Your task to perform on an android device: turn on improve location accuracy Image 0: 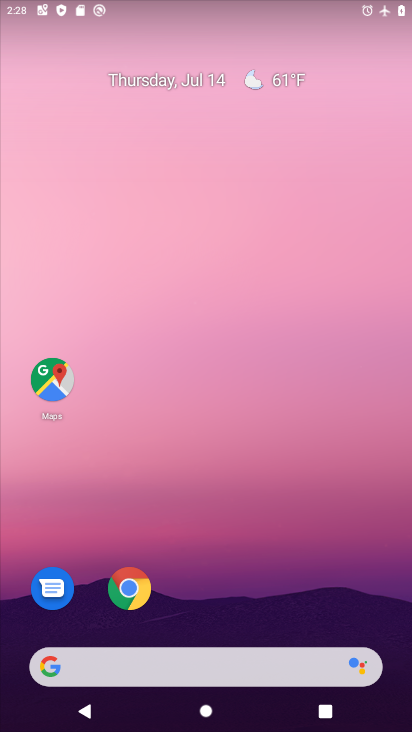
Step 0: drag from (195, 576) to (242, 160)
Your task to perform on an android device: turn on improve location accuracy Image 1: 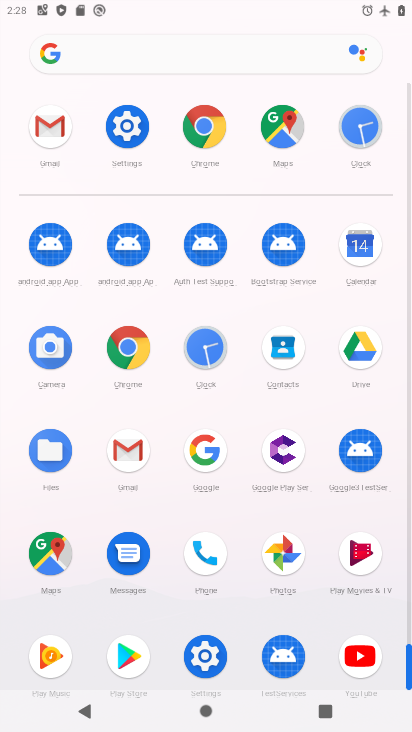
Step 1: click (135, 116)
Your task to perform on an android device: turn on improve location accuracy Image 2: 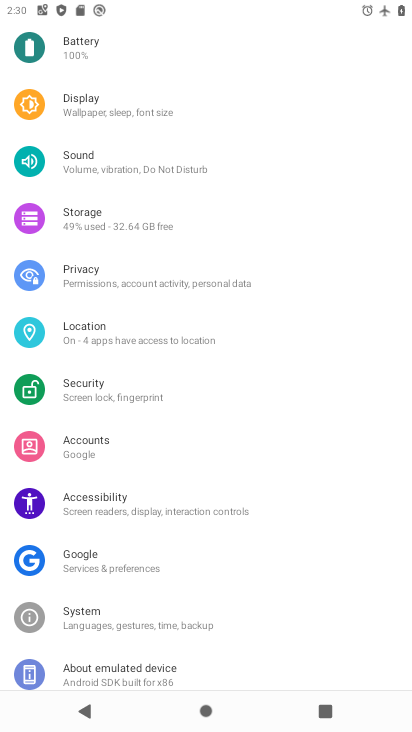
Step 2: click (145, 326)
Your task to perform on an android device: turn on improve location accuracy Image 3: 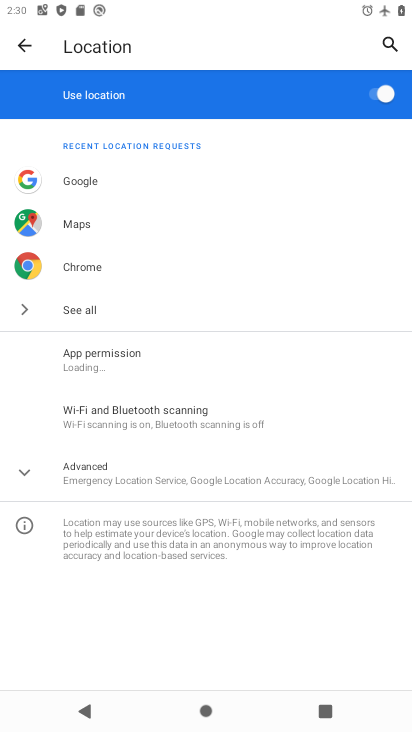
Step 3: click (131, 341)
Your task to perform on an android device: turn on improve location accuracy Image 4: 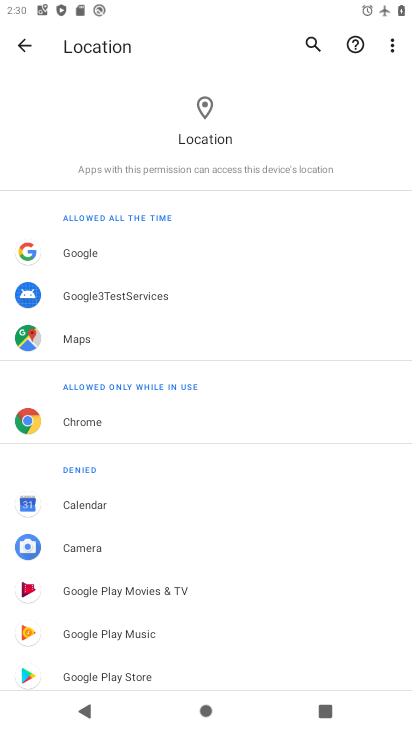
Step 4: click (18, 36)
Your task to perform on an android device: turn on improve location accuracy Image 5: 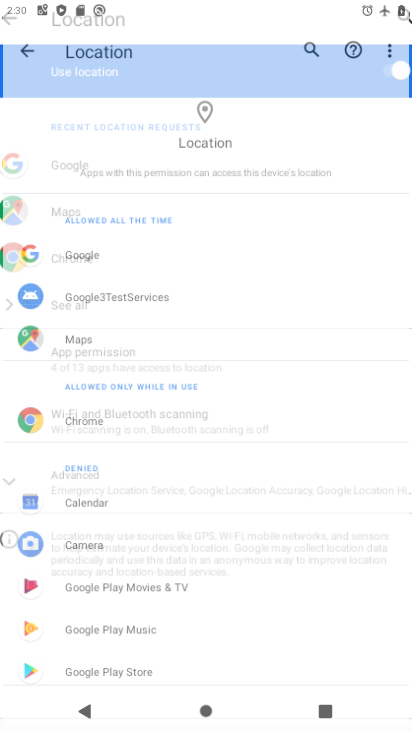
Step 5: click (24, 39)
Your task to perform on an android device: turn on improve location accuracy Image 6: 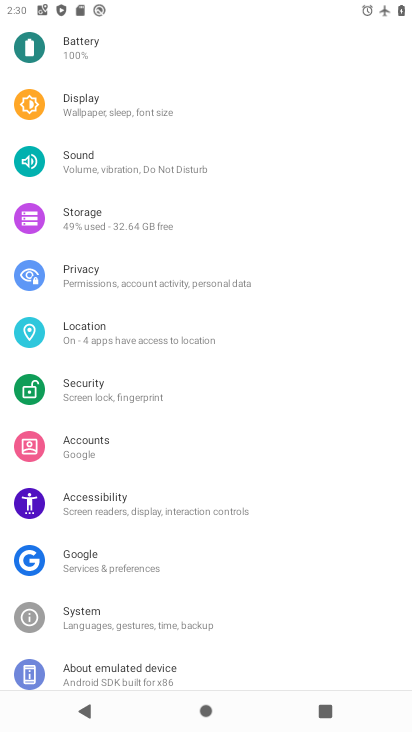
Step 6: click (108, 324)
Your task to perform on an android device: turn on improve location accuracy Image 7: 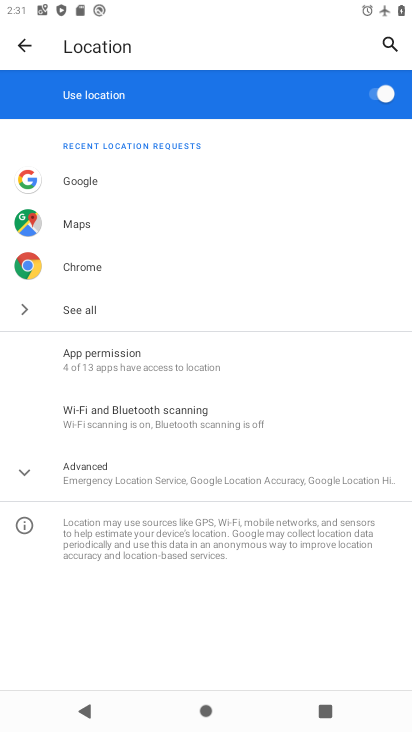
Step 7: click (164, 476)
Your task to perform on an android device: turn on improve location accuracy Image 8: 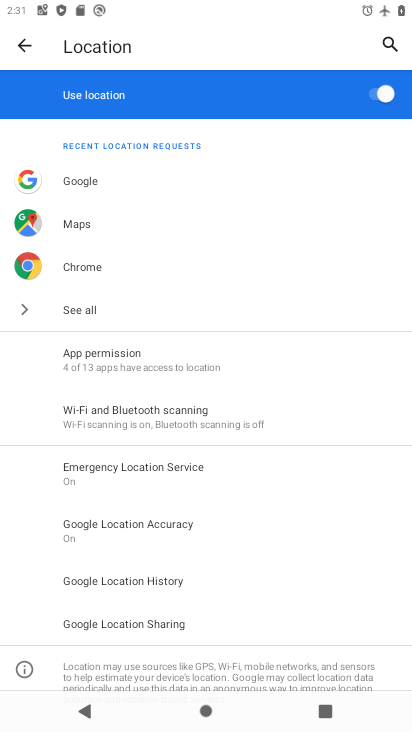
Step 8: click (167, 523)
Your task to perform on an android device: turn on improve location accuracy Image 9: 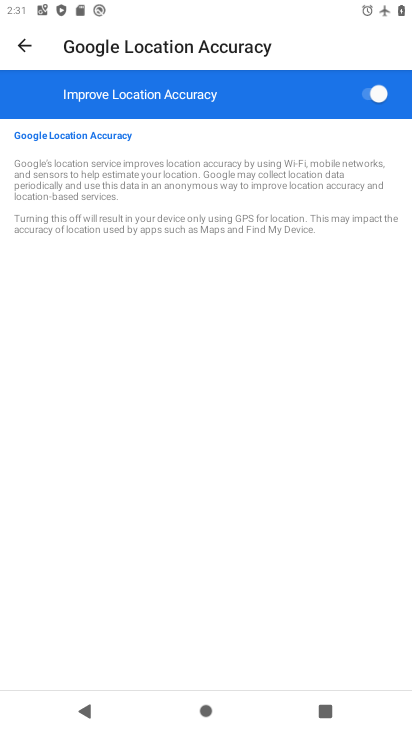
Step 9: task complete